Your task to perform on an android device: Open Chrome and go to the settings page Image 0: 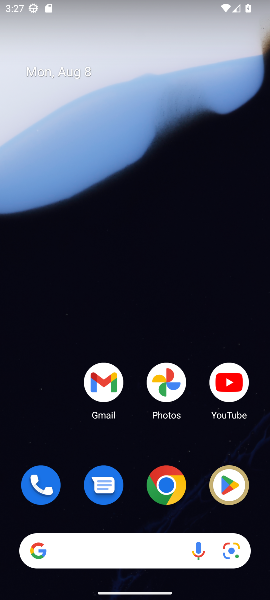
Step 0: drag from (117, 377) to (114, 83)
Your task to perform on an android device: Open Chrome and go to the settings page Image 1: 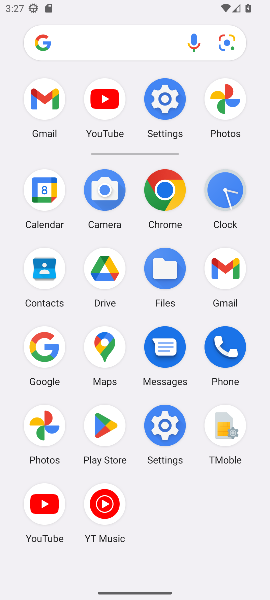
Step 1: click (162, 436)
Your task to perform on an android device: Open Chrome and go to the settings page Image 2: 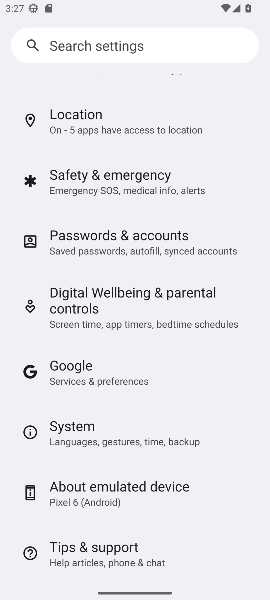
Step 2: drag from (163, 502) to (116, 136)
Your task to perform on an android device: Open Chrome and go to the settings page Image 3: 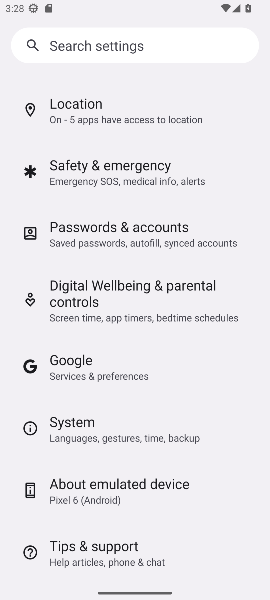
Step 3: drag from (95, 264) to (95, 55)
Your task to perform on an android device: Open Chrome and go to the settings page Image 4: 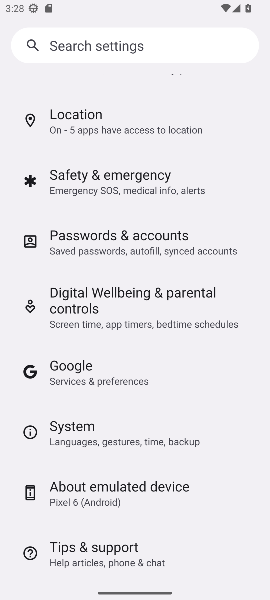
Step 4: drag from (83, 489) to (74, 99)
Your task to perform on an android device: Open Chrome and go to the settings page Image 5: 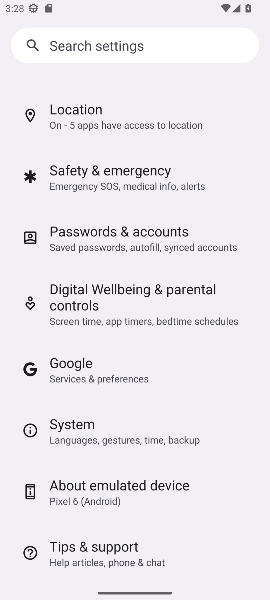
Step 5: drag from (118, 401) to (155, 107)
Your task to perform on an android device: Open Chrome and go to the settings page Image 6: 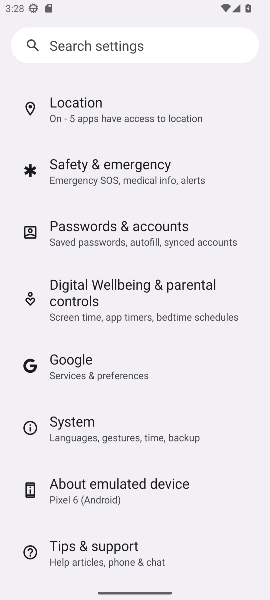
Step 6: drag from (160, 328) to (186, 167)
Your task to perform on an android device: Open Chrome and go to the settings page Image 7: 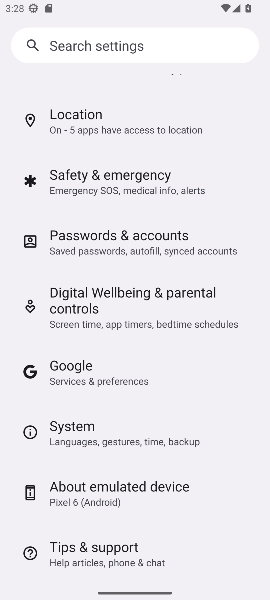
Step 7: drag from (70, 100) to (100, 146)
Your task to perform on an android device: Open Chrome and go to the settings page Image 8: 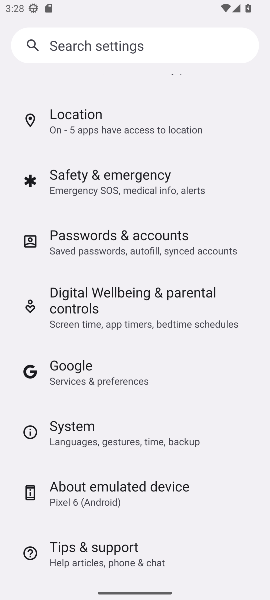
Step 8: drag from (83, 472) to (158, 124)
Your task to perform on an android device: Open Chrome and go to the settings page Image 9: 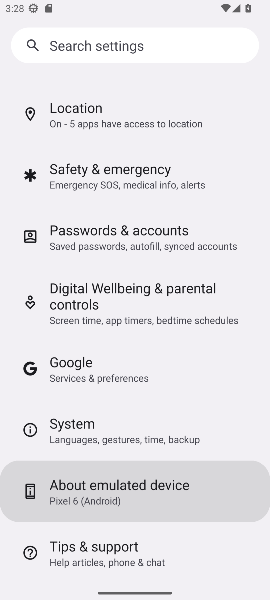
Step 9: drag from (125, 393) to (105, 157)
Your task to perform on an android device: Open Chrome and go to the settings page Image 10: 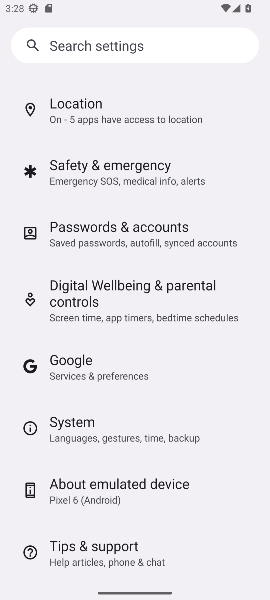
Step 10: drag from (66, 512) to (51, 257)
Your task to perform on an android device: Open Chrome and go to the settings page Image 11: 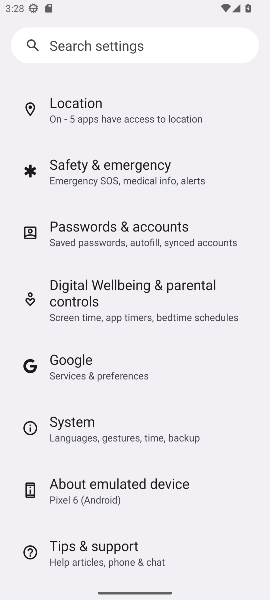
Step 11: drag from (93, 439) to (48, 134)
Your task to perform on an android device: Open Chrome and go to the settings page Image 12: 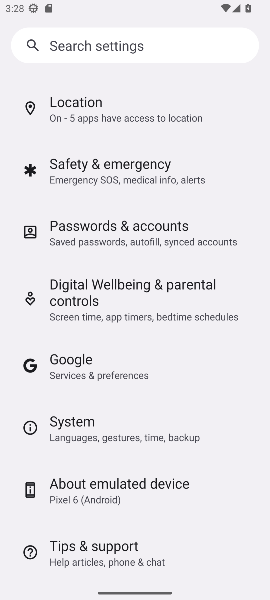
Step 12: drag from (102, 511) to (102, 240)
Your task to perform on an android device: Open Chrome and go to the settings page Image 13: 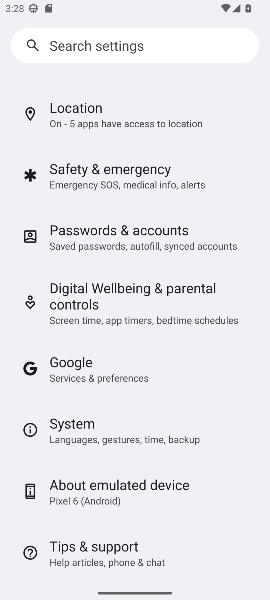
Step 13: drag from (81, 581) to (48, 349)
Your task to perform on an android device: Open Chrome and go to the settings page Image 14: 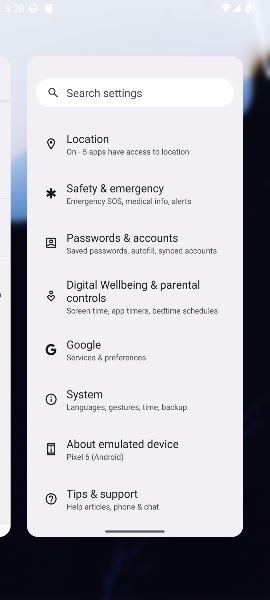
Step 14: drag from (64, 220) to (114, 514)
Your task to perform on an android device: Open Chrome and go to the settings page Image 15: 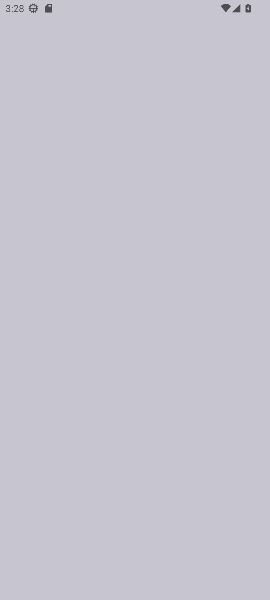
Step 15: drag from (86, 290) to (117, 514)
Your task to perform on an android device: Open Chrome and go to the settings page Image 16: 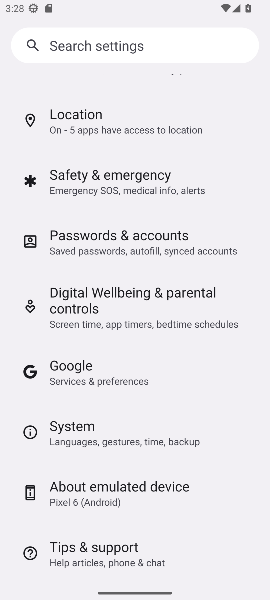
Step 16: press back button
Your task to perform on an android device: Open Chrome and go to the settings page Image 17: 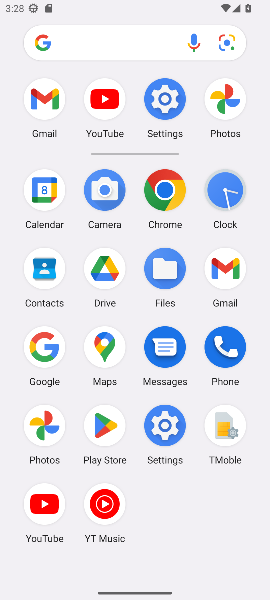
Step 17: click (171, 188)
Your task to perform on an android device: Open Chrome and go to the settings page Image 18: 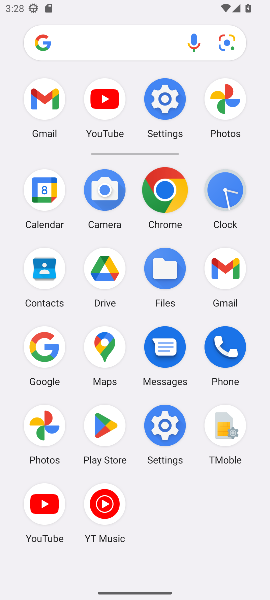
Step 18: click (171, 187)
Your task to perform on an android device: Open Chrome and go to the settings page Image 19: 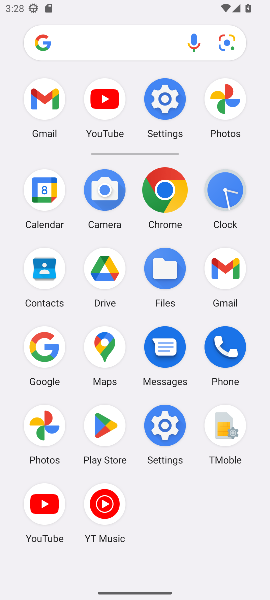
Step 19: click (170, 187)
Your task to perform on an android device: Open Chrome and go to the settings page Image 20: 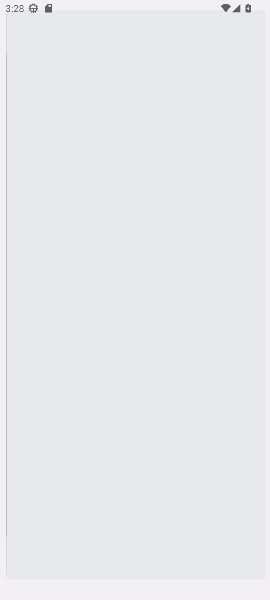
Step 20: click (168, 186)
Your task to perform on an android device: Open Chrome and go to the settings page Image 21: 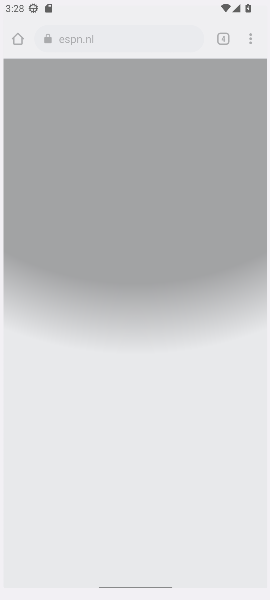
Step 21: click (168, 187)
Your task to perform on an android device: Open Chrome and go to the settings page Image 22: 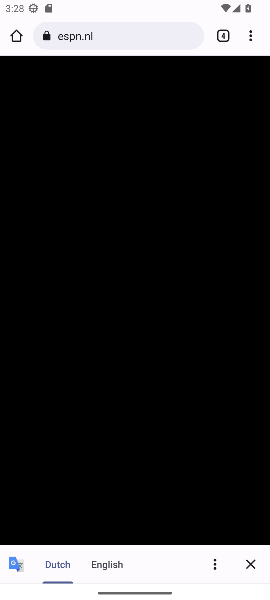
Step 22: click (255, 42)
Your task to perform on an android device: Open Chrome and go to the settings page Image 23: 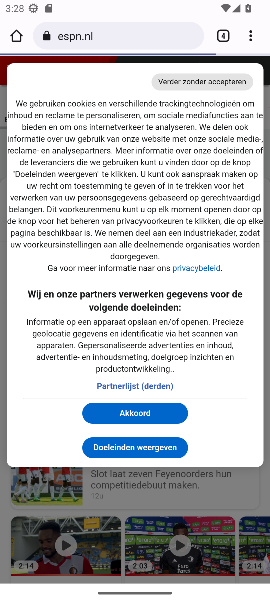
Step 23: drag from (249, 42) to (148, 455)
Your task to perform on an android device: Open Chrome and go to the settings page Image 24: 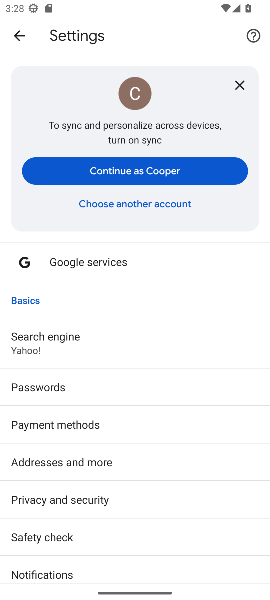
Step 24: drag from (197, 545) to (147, 148)
Your task to perform on an android device: Open Chrome and go to the settings page Image 25: 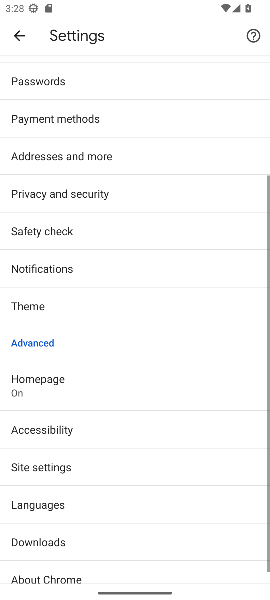
Step 25: drag from (119, 327) to (49, 96)
Your task to perform on an android device: Open Chrome and go to the settings page Image 26: 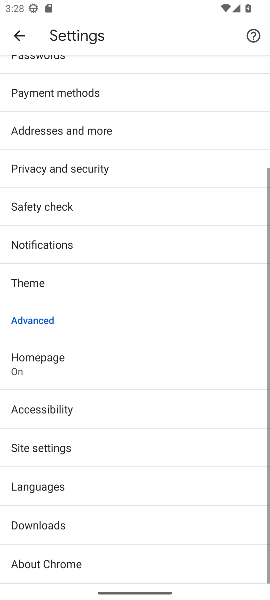
Step 26: drag from (123, 366) to (87, 111)
Your task to perform on an android device: Open Chrome and go to the settings page Image 27: 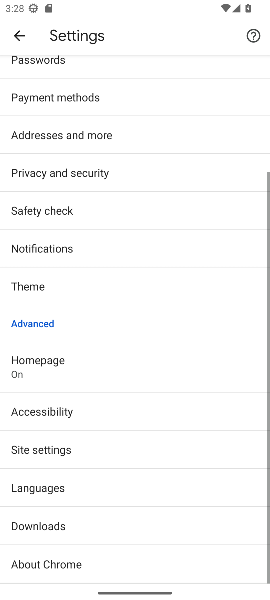
Step 27: drag from (158, 297) to (125, 19)
Your task to perform on an android device: Open Chrome and go to the settings page Image 28: 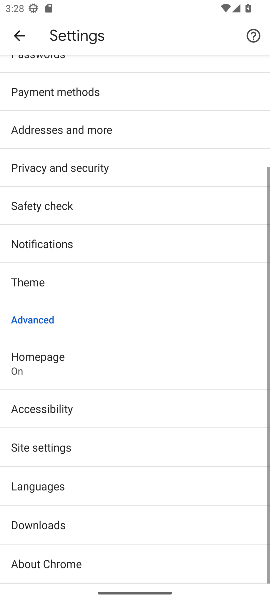
Step 28: drag from (137, 282) to (98, 29)
Your task to perform on an android device: Open Chrome and go to the settings page Image 29: 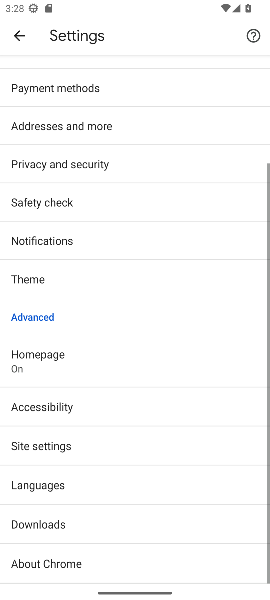
Step 29: drag from (92, 308) to (46, 159)
Your task to perform on an android device: Open Chrome and go to the settings page Image 30: 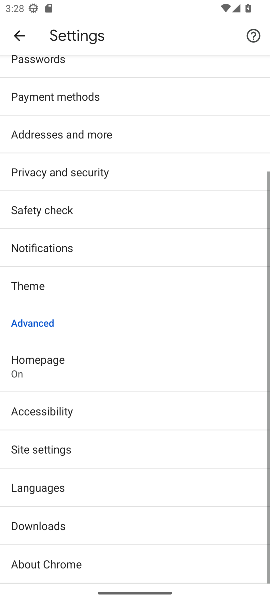
Step 30: drag from (115, 387) to (104, 31)
Your task to perform on an android device: Open Chrome and go to the settings page Image 31: 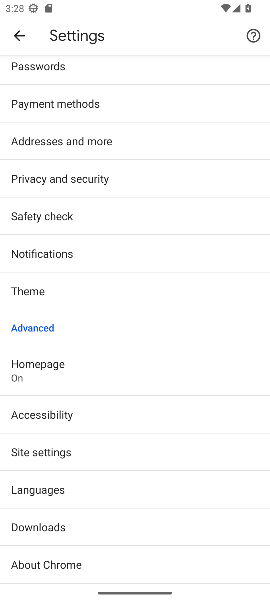
Step 31: click (145, 413)
Your task to perform on an android device: Open Chrome and go to the settings page Image 32: 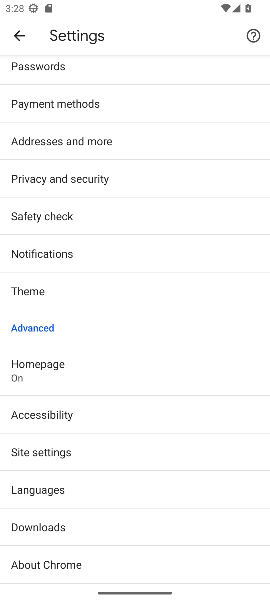
Step 32: drag from (160, 108) to (163, 461)
Your task to perform on an android device: Open Chrome and go to the settings page Image 33: 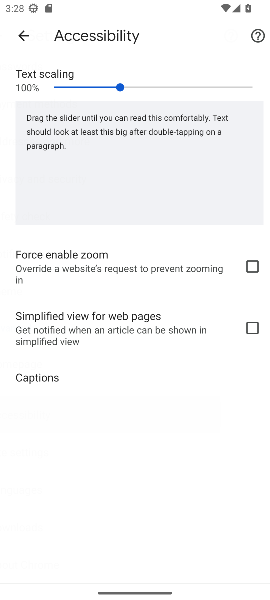
Step 33: drag from (130, 211) to (138, 462)
Your task to perform on an android device: Open Chrome and go to the settings page Image 34: 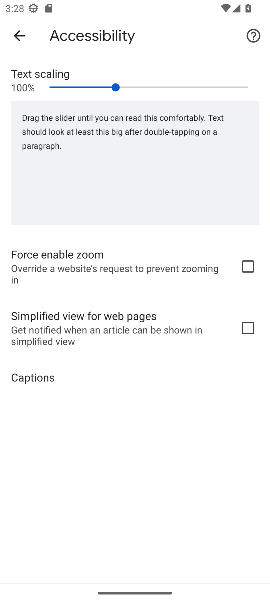
Step 34: click (19, 29)
Your task to perform on an android device: Open Chrome and go to the settings page Image 35: 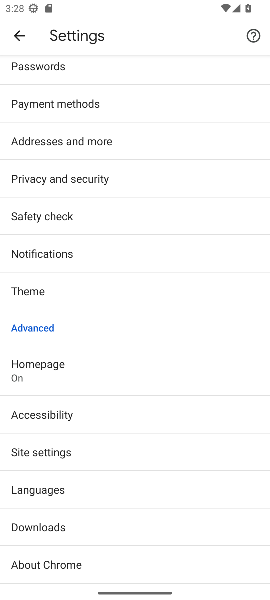
Step 35: drag from (107, 315) to (83, 180)
Your task to perform on an android device: Open Chrome and go to the settings page Image 36: 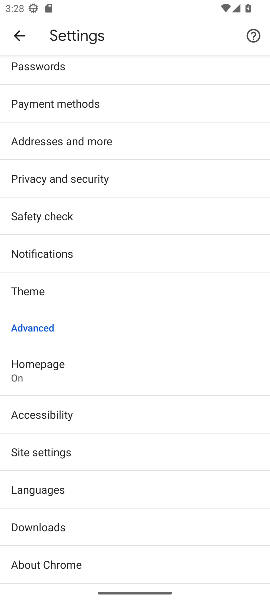
Step 36: drag from (61, 191) to (67, 527)
Your task to perform on an android device: Open Chrome and go to the settings page Image 37: 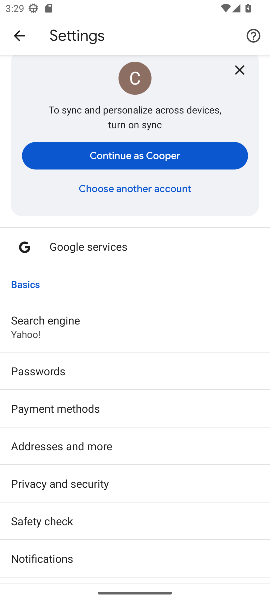
Step 37: drag from (97, 400) to (74, 196)
Your task to perform on an android device: Open Chrome and go to the settings page Image 38: 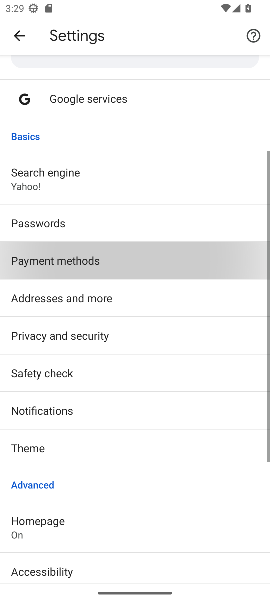
Step 38: drag from (81, 352) to (81, 157)
Your task to perform on an android device: Open Chrome and go to the settings page Image 39: 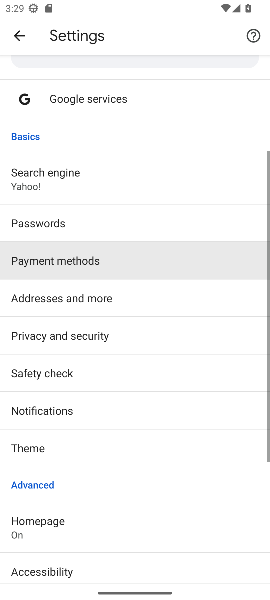
Step 39: drag from (115, 346) to (119, 183)
Your task to perform on an android device: Open Chrome and go to the settings page Image 40: 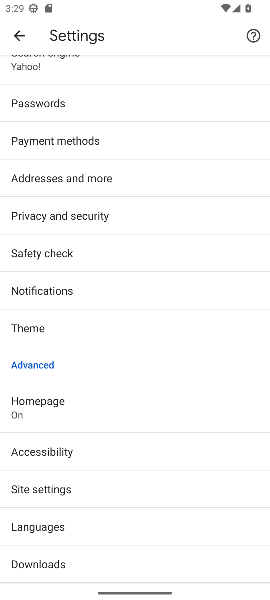
Step 40: click (34, 483)
Your task to perform on an android device: Open Chrome and go to the settings page Image 41: 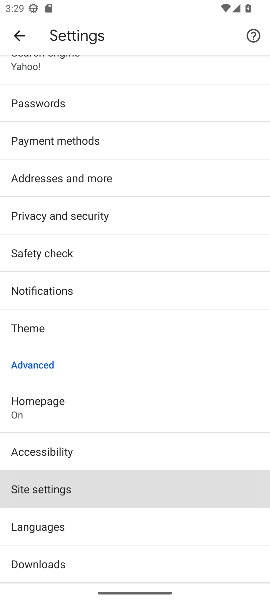
Step 41: click (39, 486)
Your task to perform on an android device: Open Chrome and go to the settings page Image 42: 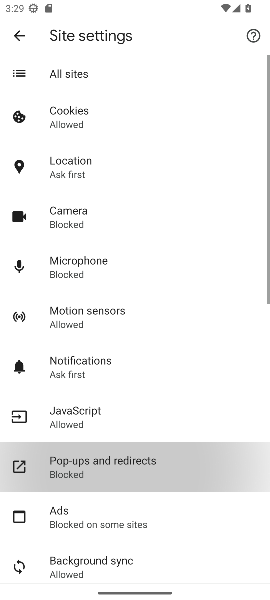
Step 42: click (39, 485)
Your task to perform on an android device: Open Chrome and go to the settings page Image 43: 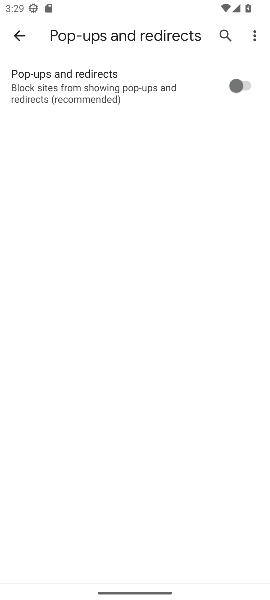
Step 43: task complete